Your task to perform on an android device: Go to notification settings Image 0: 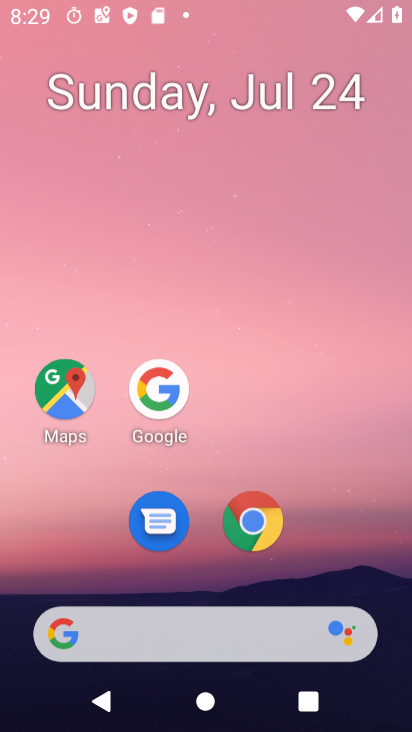
Step 0: press home button
Your task to perform on an android device: Go to notification settings Image 1: 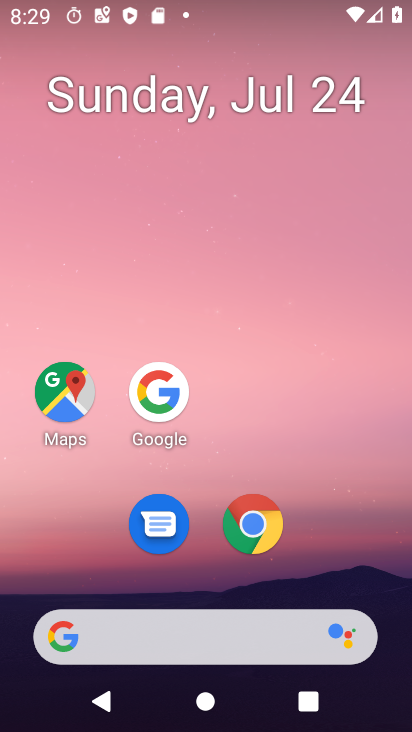
Step 1: drag from (193, 637) to (331, 2)
Your task to perform on an android device: Go to notification settings Image 2: 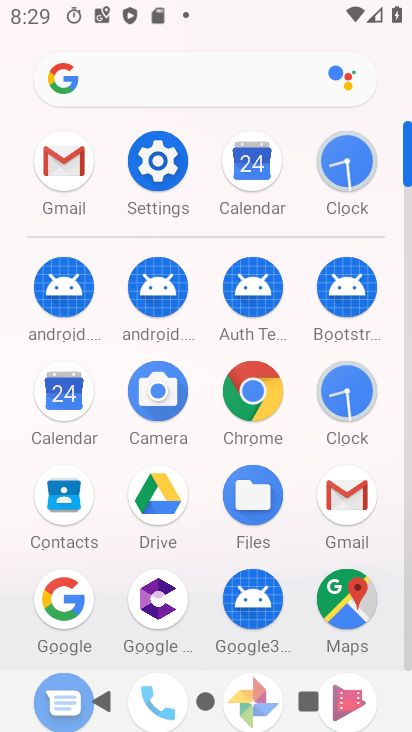
Step 2: click (151, 169)
Your task to perform on an android device: Go to notification settings Image 3: 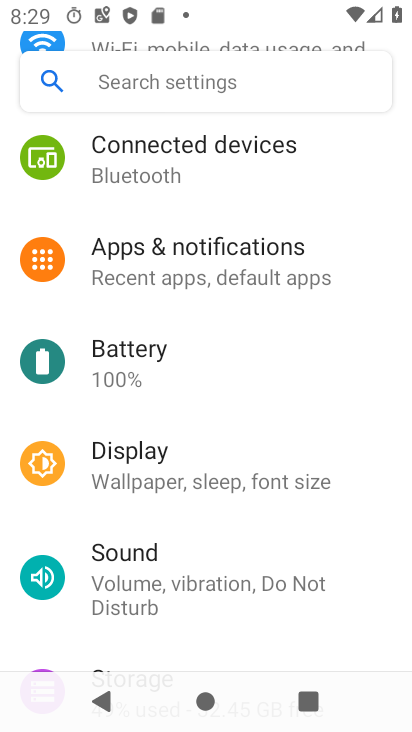
Step 3: click (263, 268)
Your task to perform on an android device: Go to notification settings Image 4: 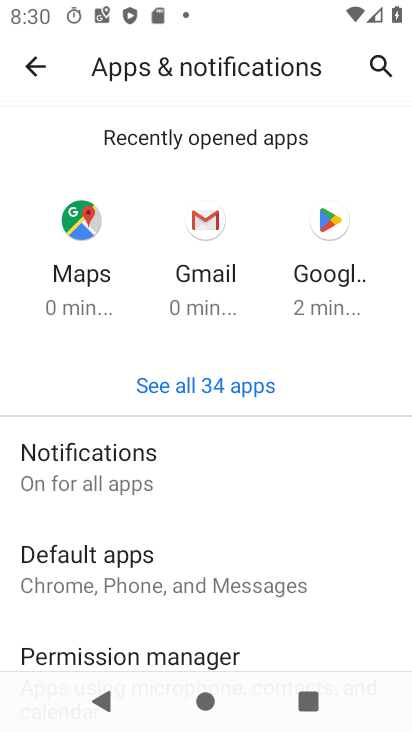
Step 4: click (120, 475)
Your task to perform on an android device: Go to notification settings Image 5: 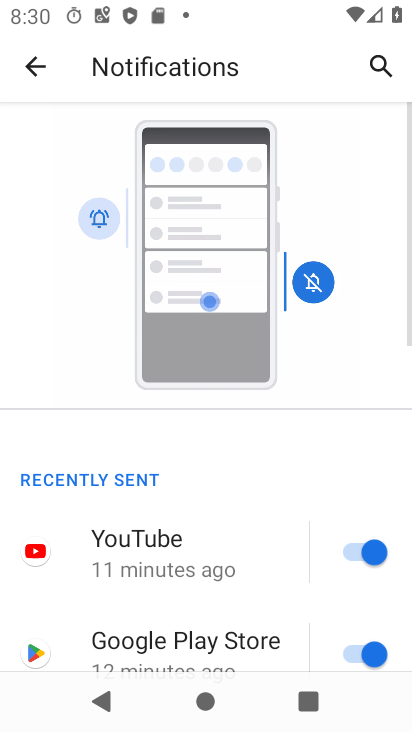
Step 5: task complete